Your task to perform on an android device: turn on sleep mode Image 0: 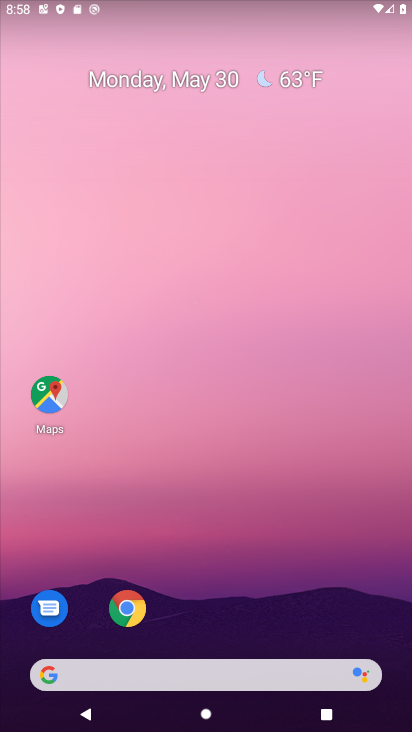
Step 0: drag from (397, 675) to (295, 183)
Your task to perform on an android device: turn on sleep mode Image 1: 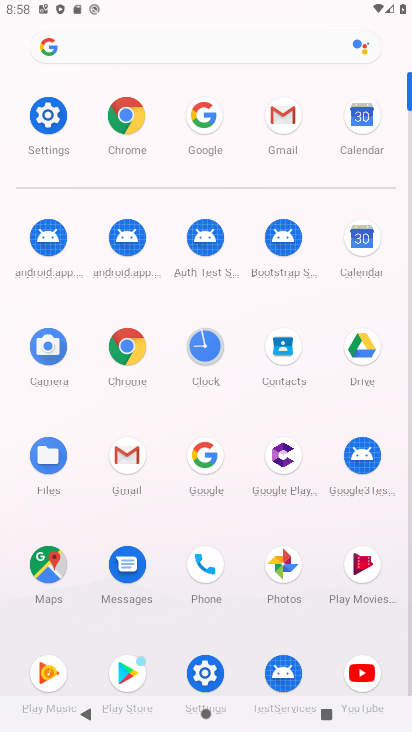
Step 1: click (57, 125)
Your task to perform on an android device: turn on sleep mode Image 2: 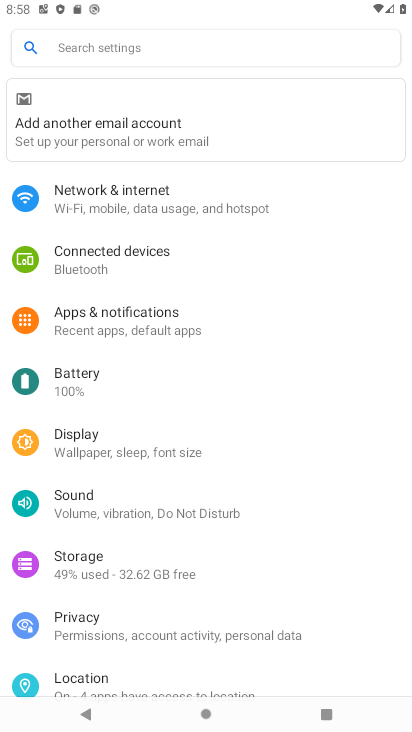
Step 2: click (78, 448)
Your task to perform on an android device: turn on sleep mode Image 3: 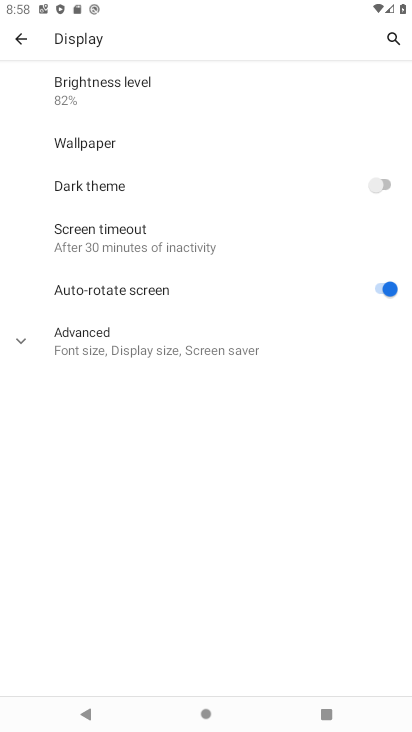
Step 3: click (96, 227)
Your task to perform on an android device: turn on sleep mode Image 4: 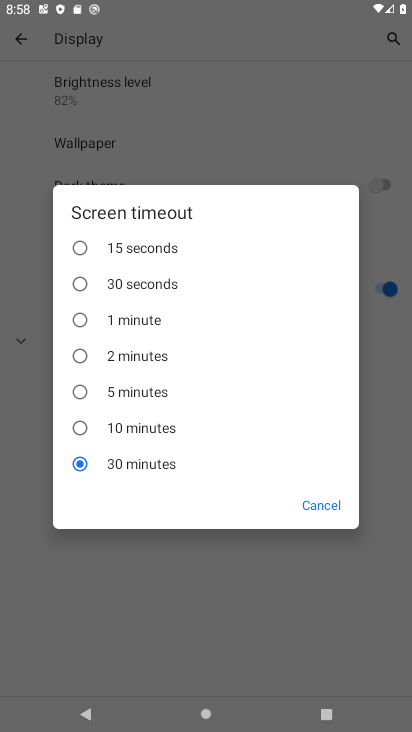
Step 4: task complete